Your task to perform on an android device: Open notification settings Image 0: 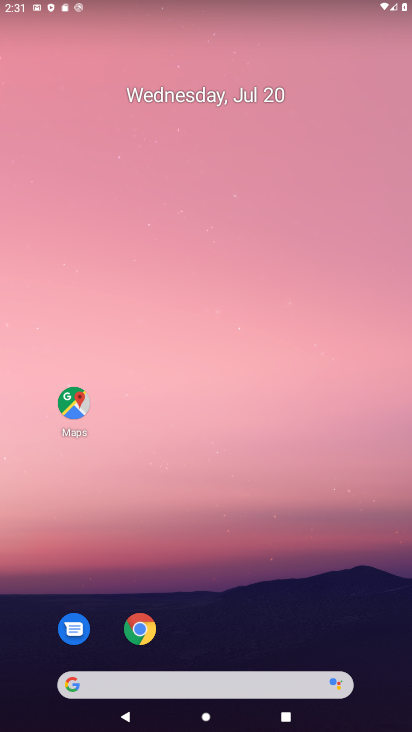
Step 0: drag from (232, 668) to (233, 186)
Your task to perform on an android device: Open notification settings Image 1: 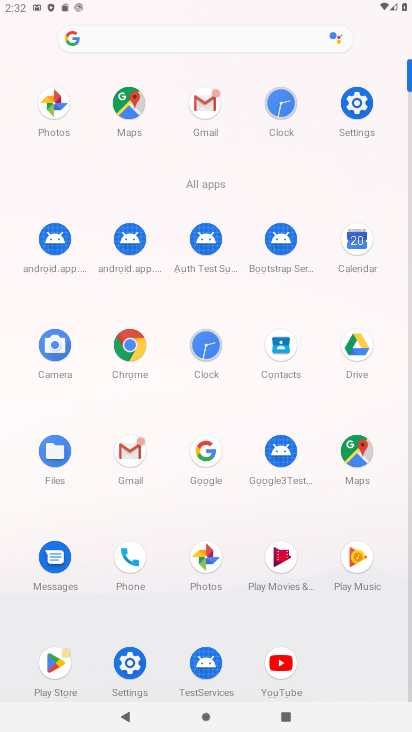
Step 1: click (138, 653)
Your task to perform on an android device: Open notification settings Image 2: 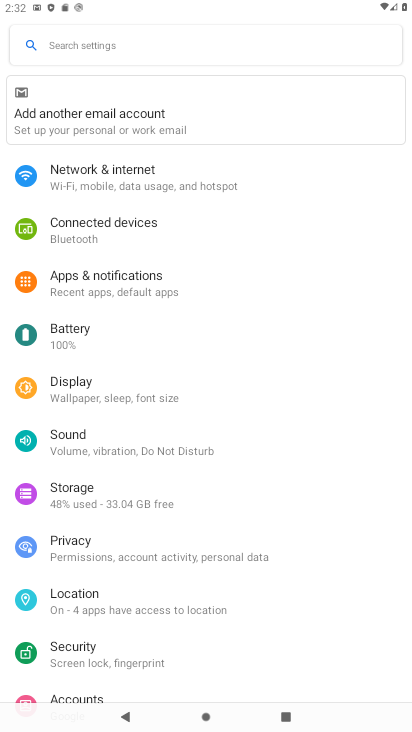
Step 2: click (173, 276)
Your task to perform on an android device: Open notification settings Image 3: 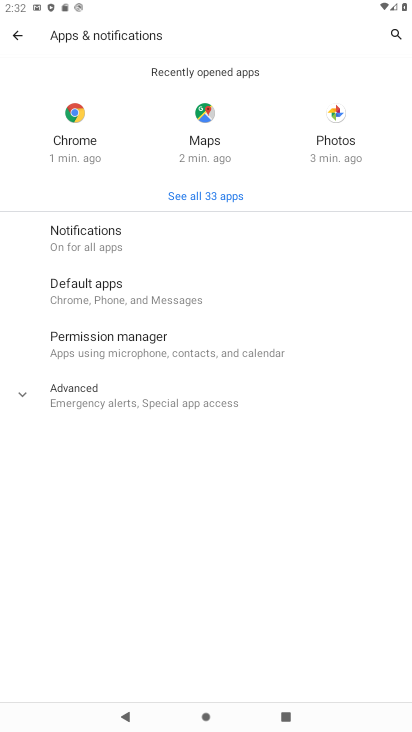
Step 3: click (98, 238)
Your task to perform on an android device: Open notification settings Image 4: 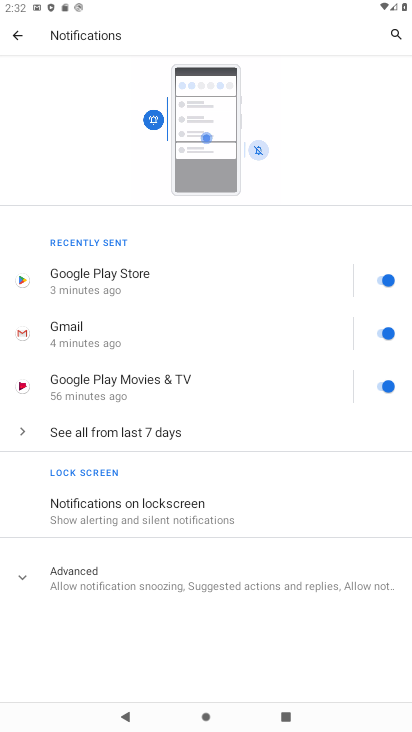
Step 4: task complete